Your task to perform on an android device: turn off smart reply in the gmail app Image 0: 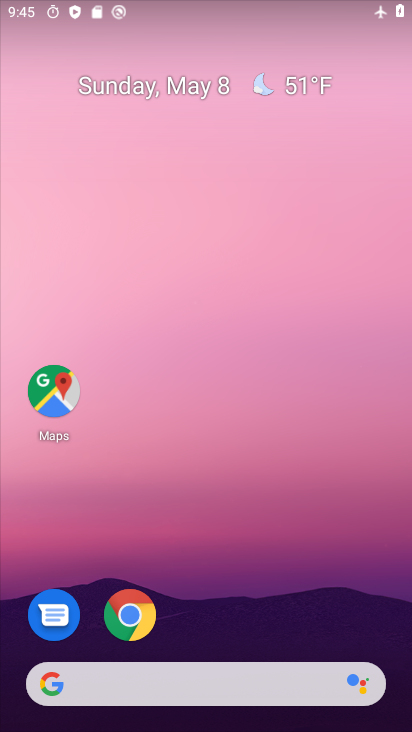
Step 0: drag from (205, 626) to (217, 266)
Your task to perform on an android device: turn off smart reply in the gmail app Image 1: 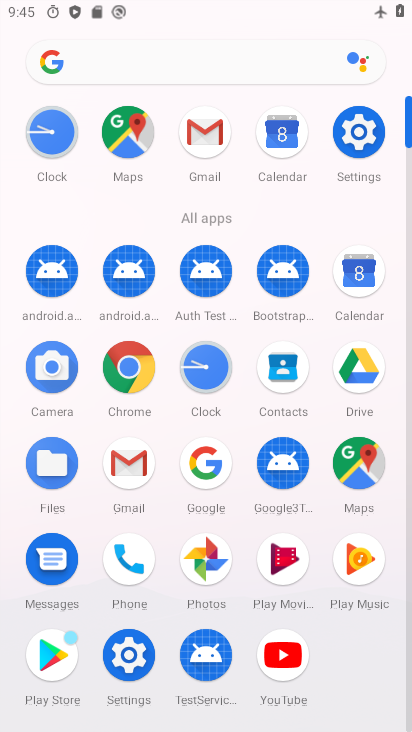
Step 1: click (204, 153)
Your task to perform on an android device: turn off smart reply in the gmail app Image 2: 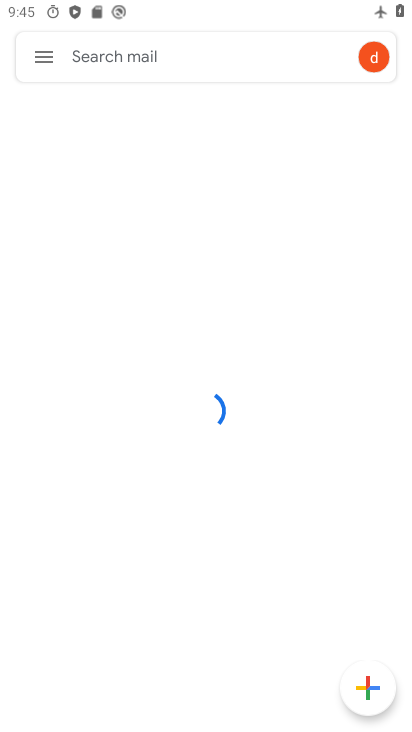
Step 2: click (37, 48)
Your task to perform on an android device: turn off smart reply in the gmail app Image 3: 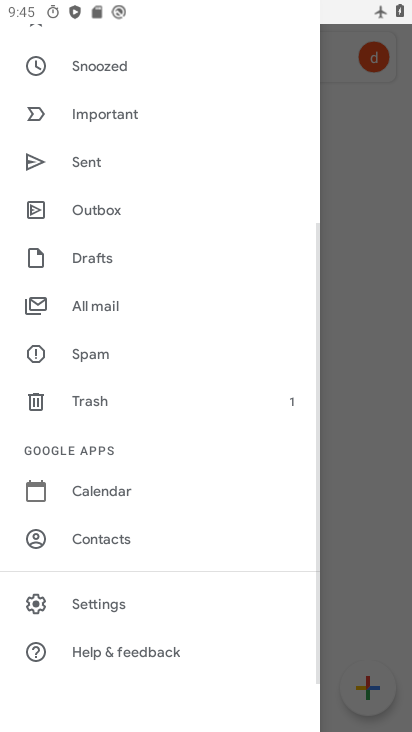
Step 3: click (113, 589)
Your task to perform on an android device: turn off smart reply in the gmail app Image 4: 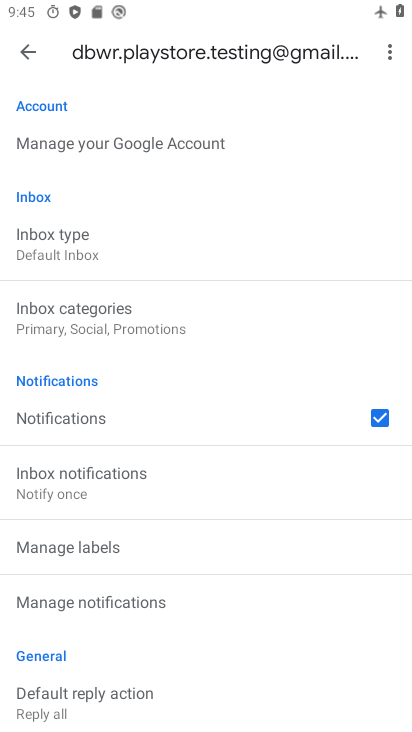
Step 4: drag from (145, 629) to (139, 168)
Your task to perform on an android device: turn off smart reply in the gmail app Image 5: 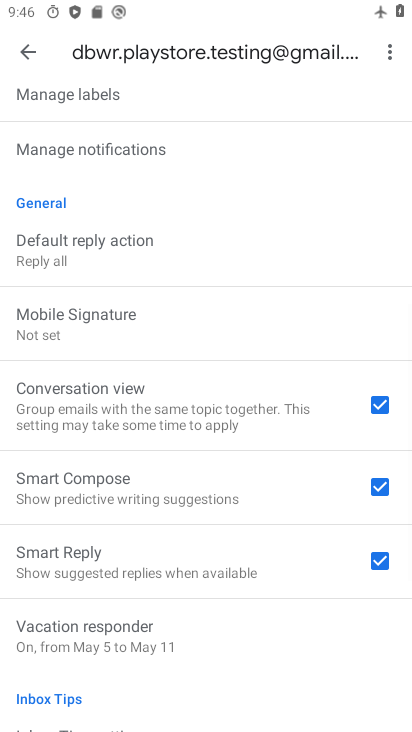
Step 5: drag from (128, 638) to (134, 516)
Your task to perform on an android device: turn off smart reply in the gmail app Image 6: 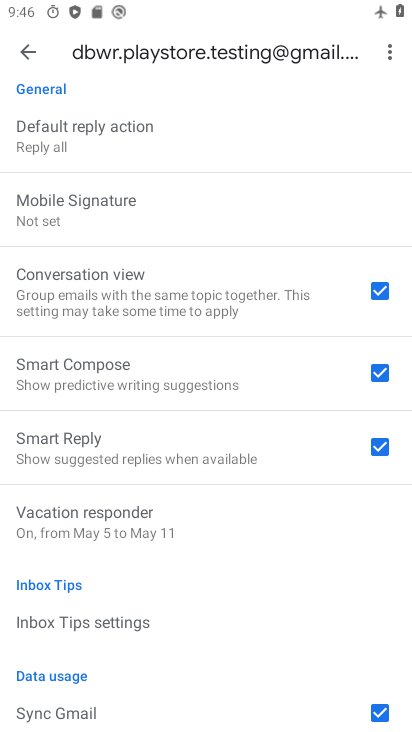
Step 6: click (371, 443)
Your task to perform on an android device: turn off smart reply in the gmail app Image 7: 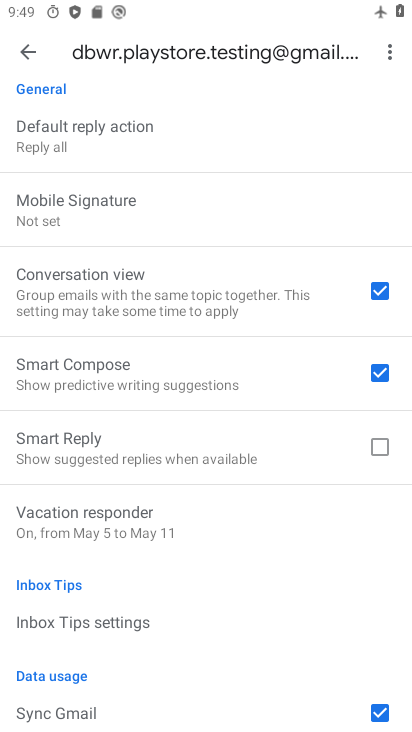
Step 7: task complete